Your task to perform on an android device: Do I have any events today? Image 0: 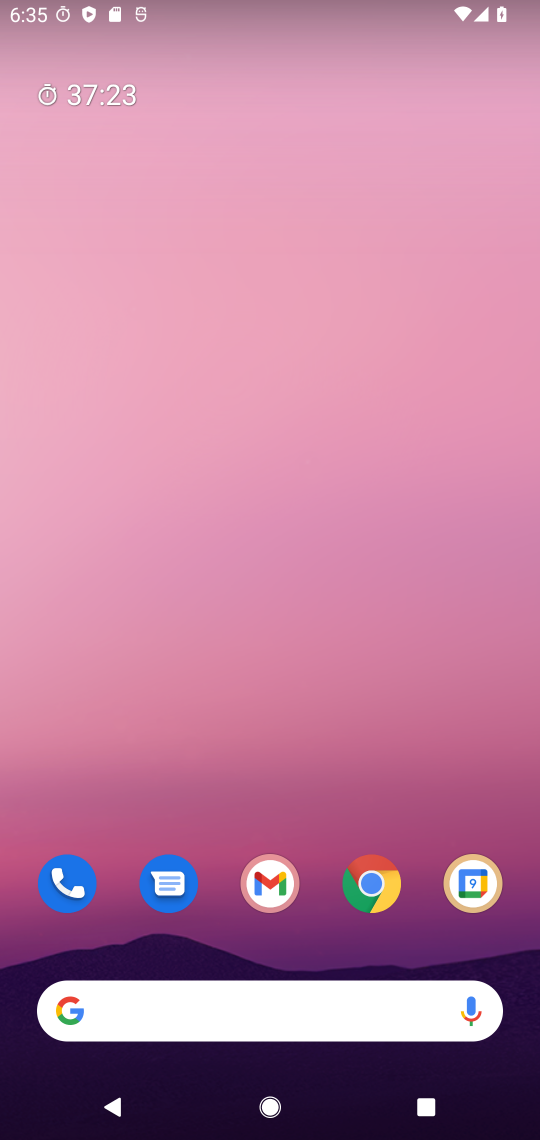
Step 0: drag from (272, 696) to (272, 94)
Your task to perform on an android device: Do I have any events today? Image 1: 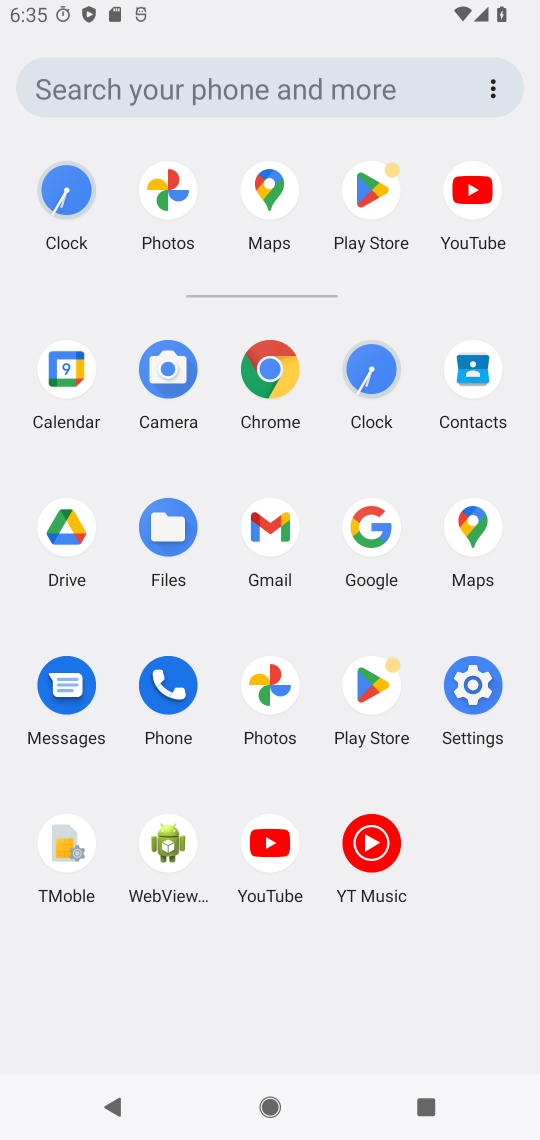
Step 1: click (46, 387)
Your task to perform on an android device: Do I have any events today? Image 2: 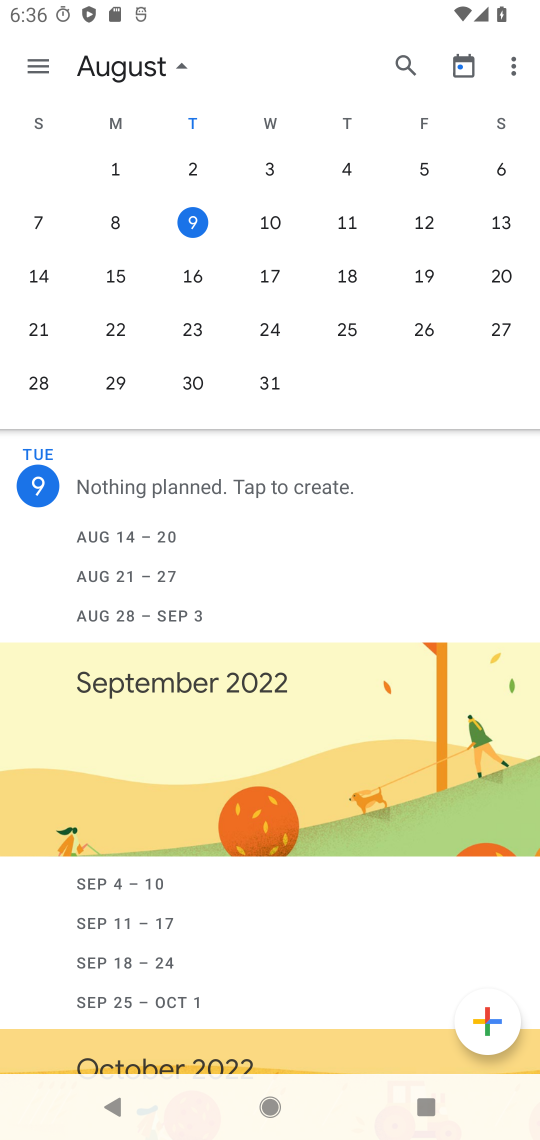
Step 2: click (215, 230)
Your task to perform on an android device: Do I have any events today? Image 3: 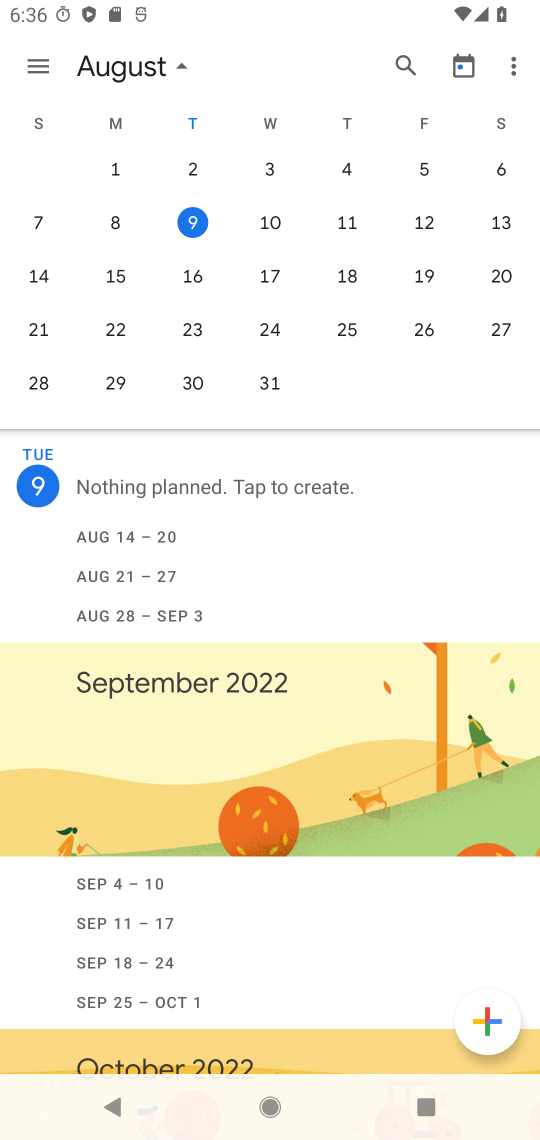
Step 3: task complete